Your task to perform on an android device: Open Chrome and go to the settings page Image 0: 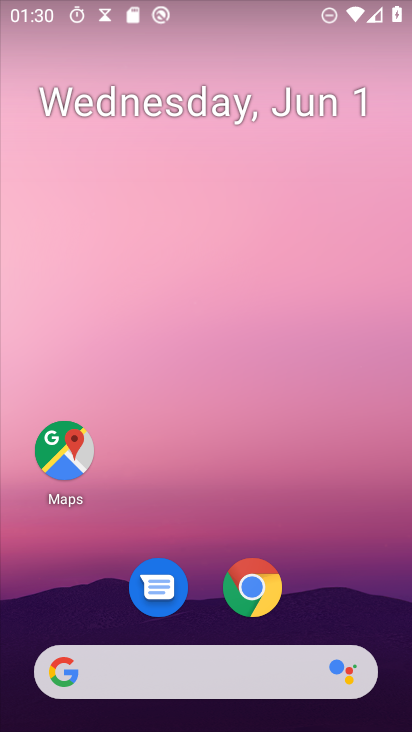
Step 0: drag from (324, 612) to (304, 3)
Your task to perform on an android device: Open Chrome and go to the settings page Image 1: 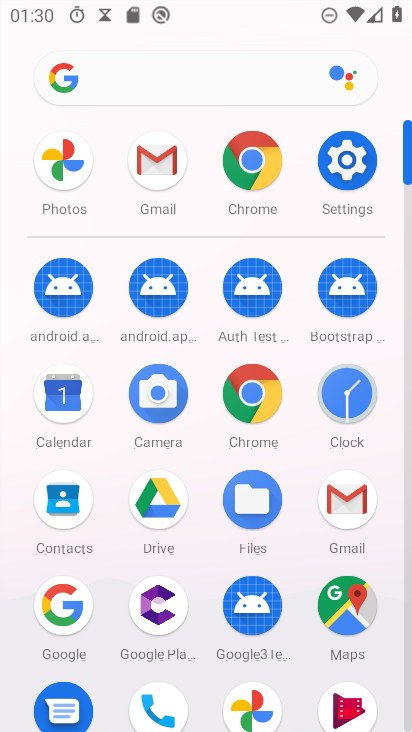
Step 1: click (249, 402)
Your task to perform on an android device: Open Chrome and go to the settings page Image 2: 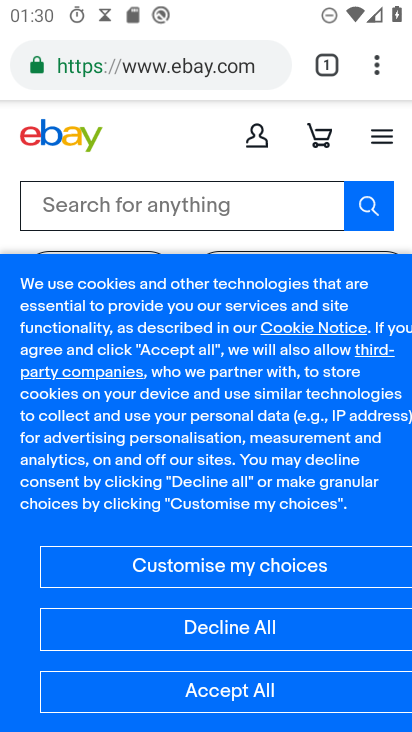
Step 2: click (373, 78)
Your task to perform on an android device: Open Chrome and go to the settings page Image 3: 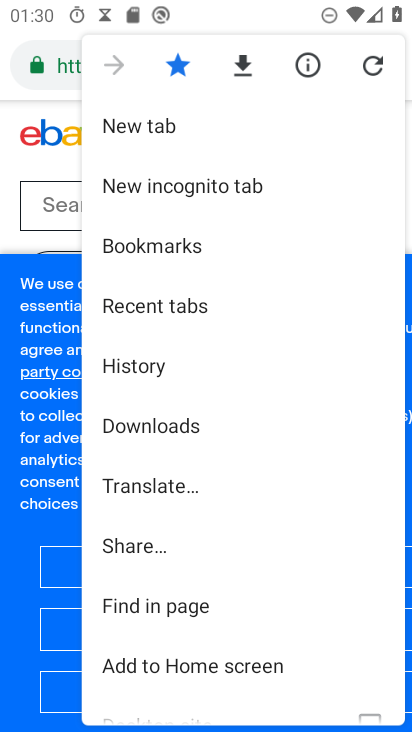
Step 3: drag from (208, 632) to (221, 141)
Your task to perform on an android device: Open Chrome and go to the settings page Image 4: 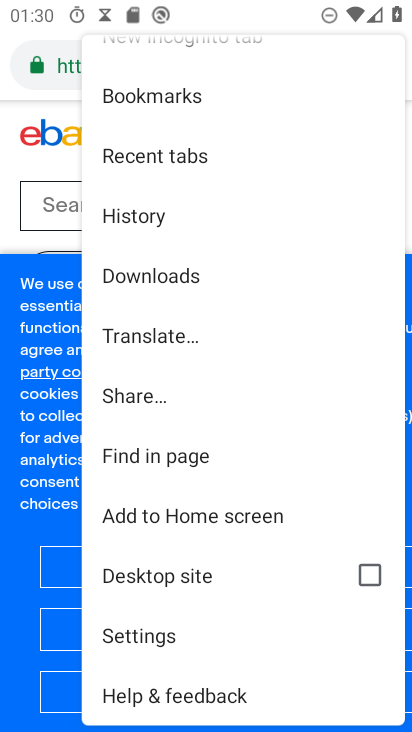
Step 4: click (197, 630)
Your task to perform on an android device: Open Chrome and go to the settings page Image 5: 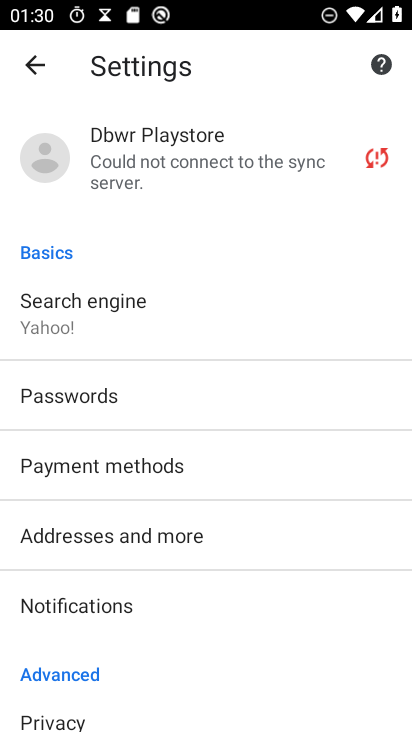
Step 5: task complete